Your task to perform on an android device: delete location history Image 0: 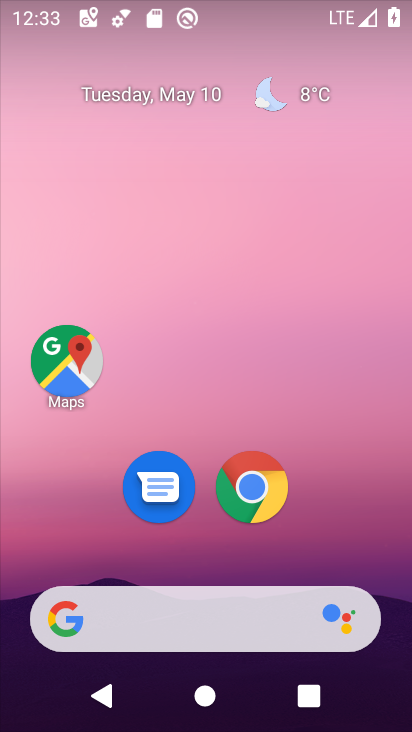
Step 0: drag from (205, 558) to (247, 79)
Your task to perform on an android device: delete location history Image 1: 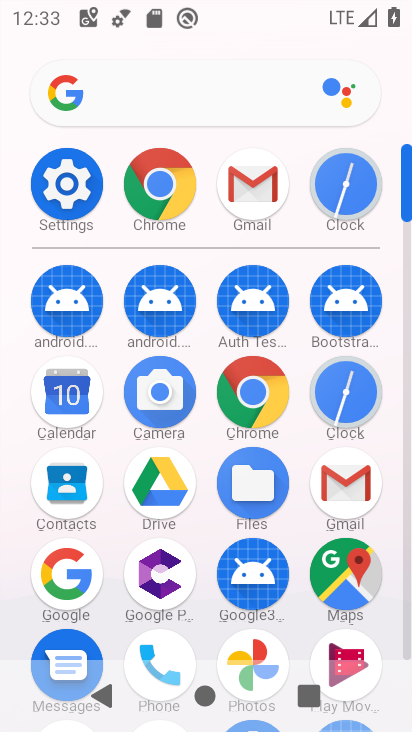
Step 1: click (345, 566)
Your task to perform on an android device: delete location history Image 2: 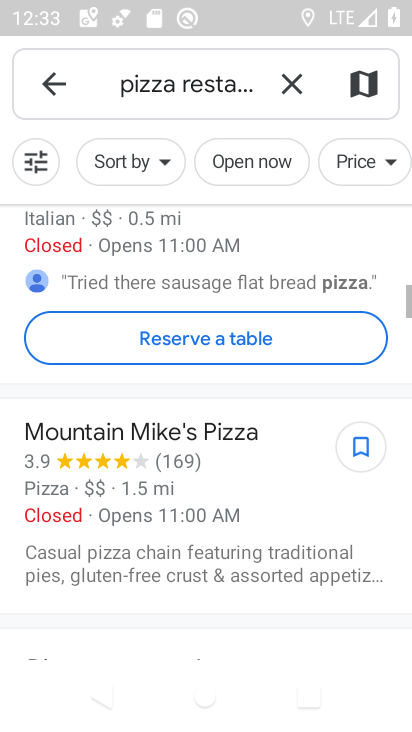
Step 2: click (56, 78)
Your task to perform on an android device: delete location history Image 3: 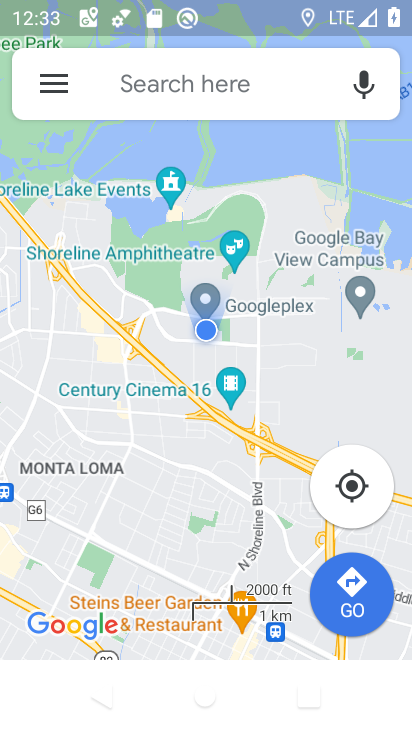
Step 3: click (45, 81)
Your task to perform on an android device: delete location history Image 4: 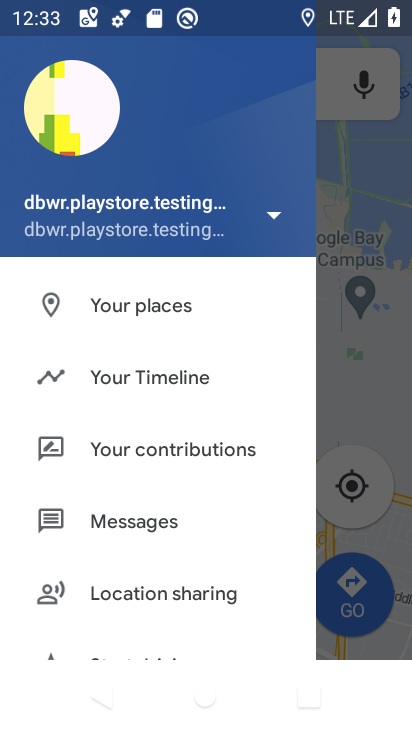
Step 4: click (127, 377)
Your task to perform on an android device: delete location history Image 5: 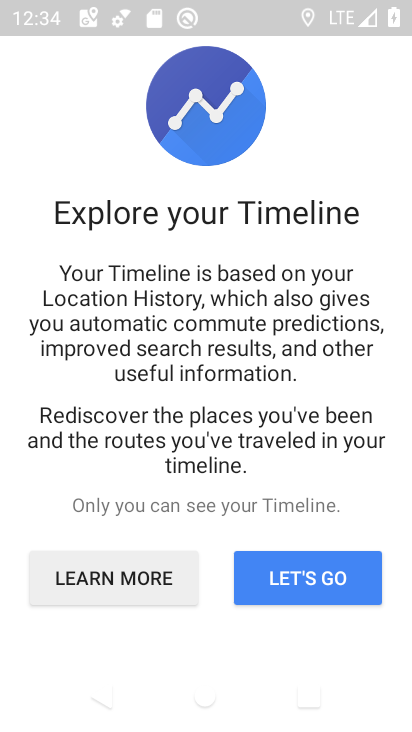
Step 5: click (315, 584)
Your task to perform on an android device: delete location history Image 6: 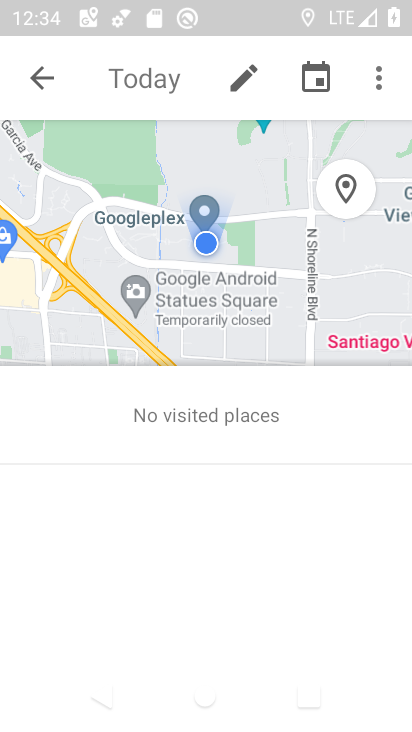
Step 6: click (378, 70)
Your task to perform on an android device: delete location history Image 7: 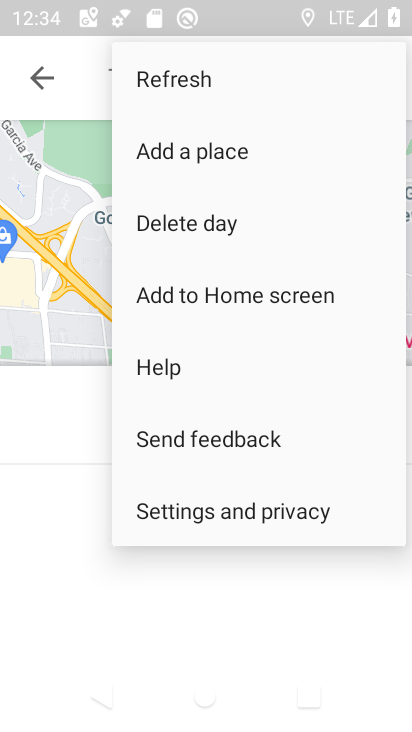
Step 7: click (328, 511)
Your task to perform on an android device: delete location history Image 8: 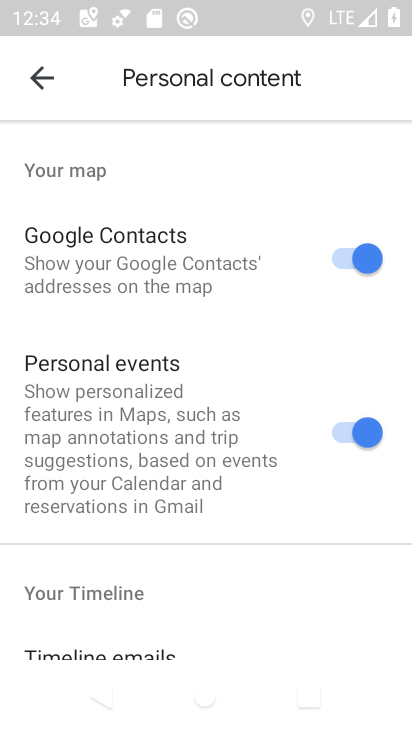
Step 8: drag from (246, 609) to (276, 207)
Your task to perform on an android device: delete location history Image 9: 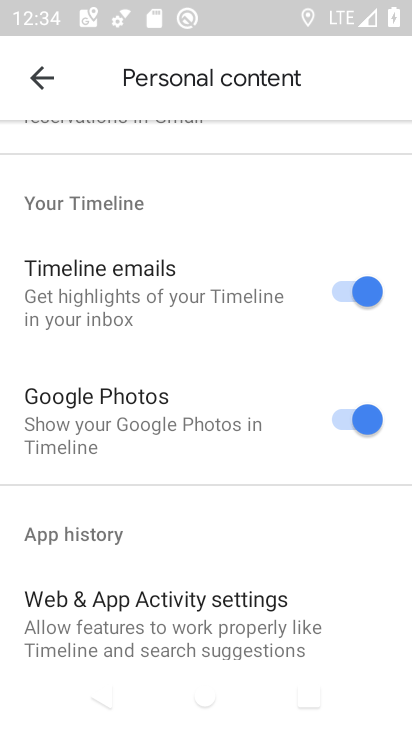
Step 9: drag from (194, 577) to (202, 107)
Your task to perform on an android device: delete location history Image 10: 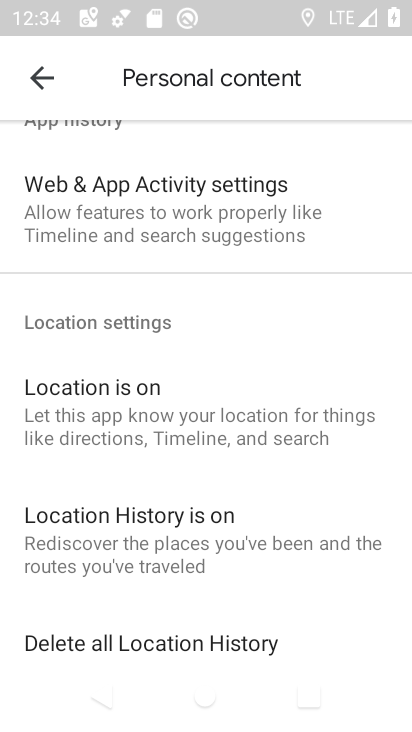
Step 10: drag from (226, 607) to (230, 252)
Your task to perform on an android device: delete location history Image 11: 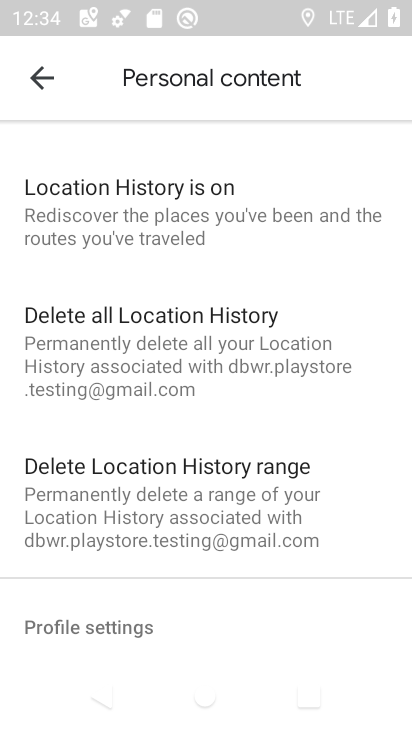
Step 11: click (285, 318)
Your task to perform on an android device: delete location history Image 12: 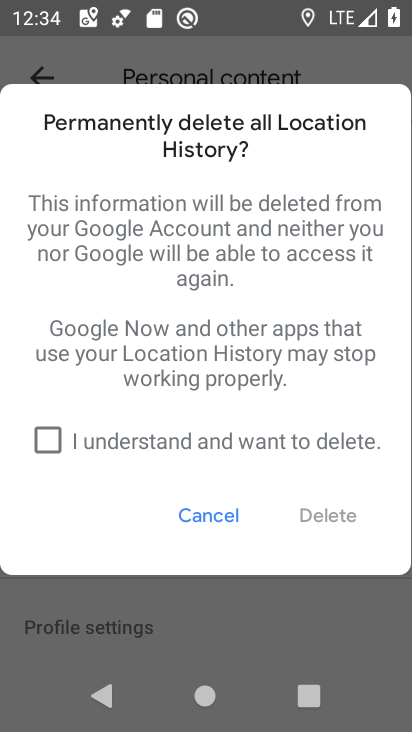
Step 12: click (51, 432)
Your task to perform on an android device: delete location history Image 13: 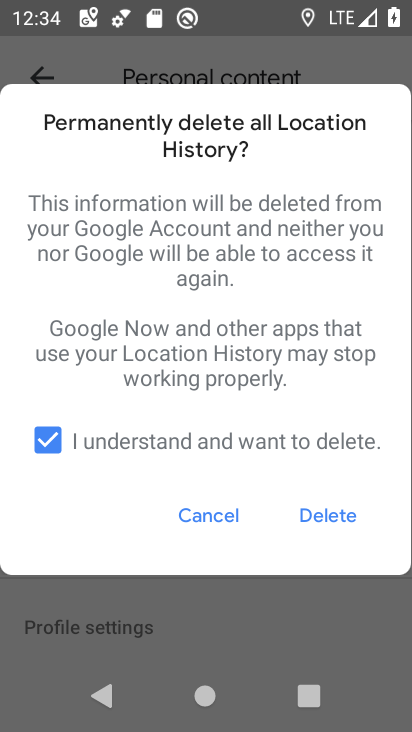
Step 13: click (334, 517)
Your task to perform on an android device: delete location history Image 14: 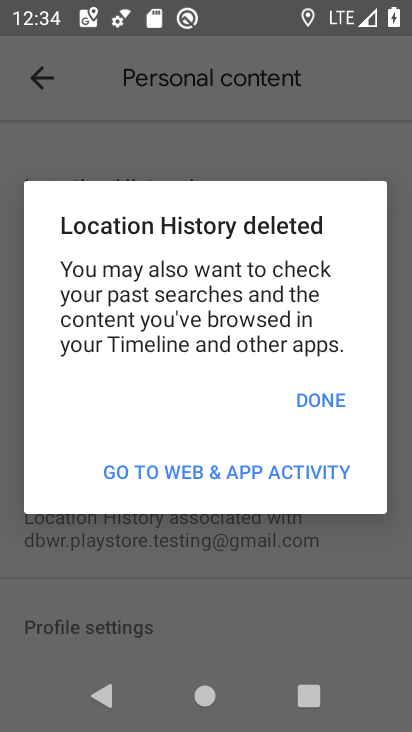
Step 14: click (312, 399)
Your task to perform on an android device: delete location history Image 15: 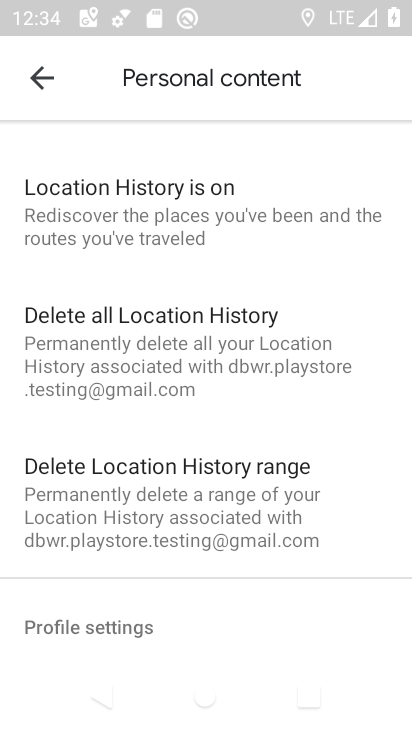
Step 15: task complete